Your task to perform on an android device: Go to notification settings Image 0: 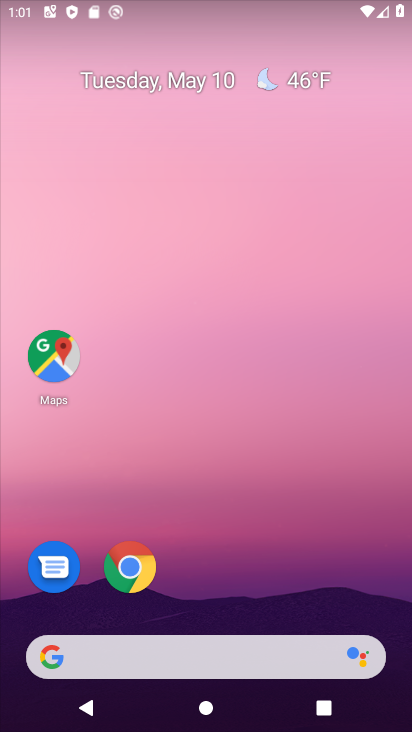
Step 0: click (265, 195)
Your task to perform on an android device: Go to notification settings Image 1: 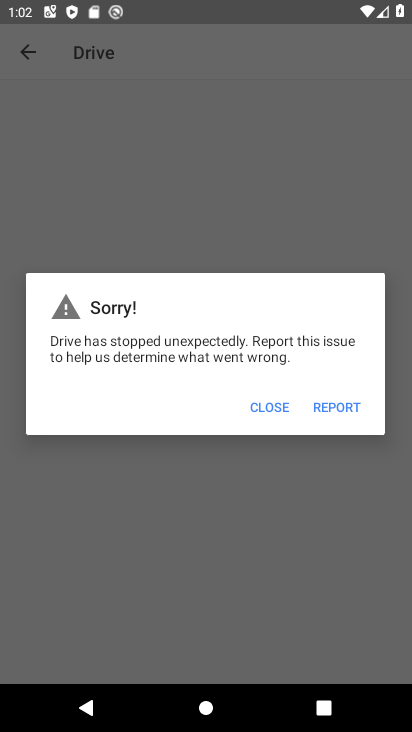
Step 1: press home button
Your task to perform on an android device: Go to notification settings Image 2: 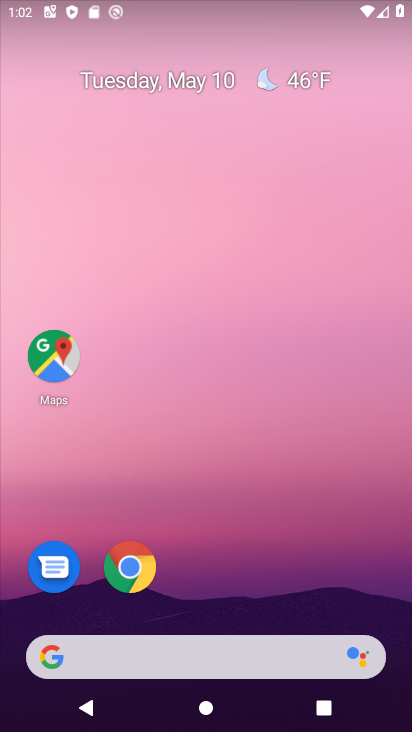
Step 2: drag from (336, 494) to (334, 165)
Your task to perform on an android device: Go to notification settings Image 3: 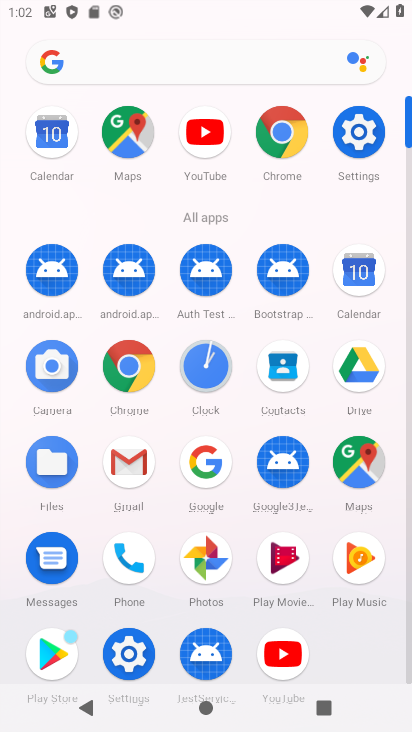
Step 3: click (358, 147)
Your task to perform on an android device: Go to notification settings Image 4: 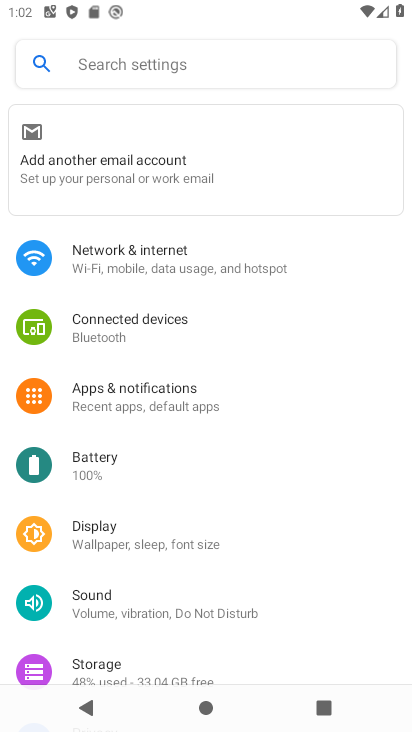
Step 4: click (225, 386)
Your task to perform on an android device: Go to notification settings Image 5: 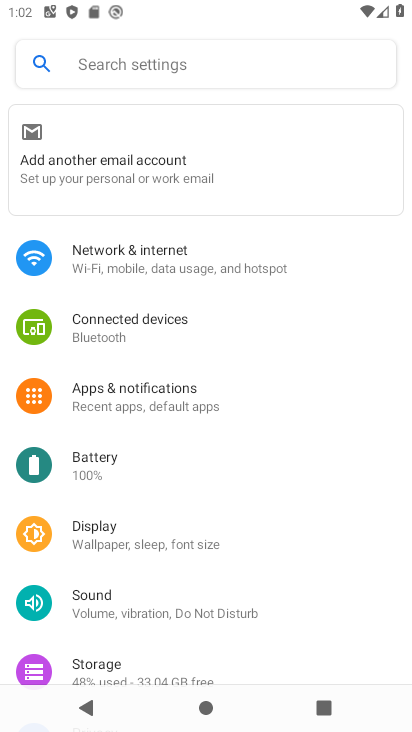
Step 5: click (156, 394)
Your task to perform on an android device: Go to notification settings Image 6: 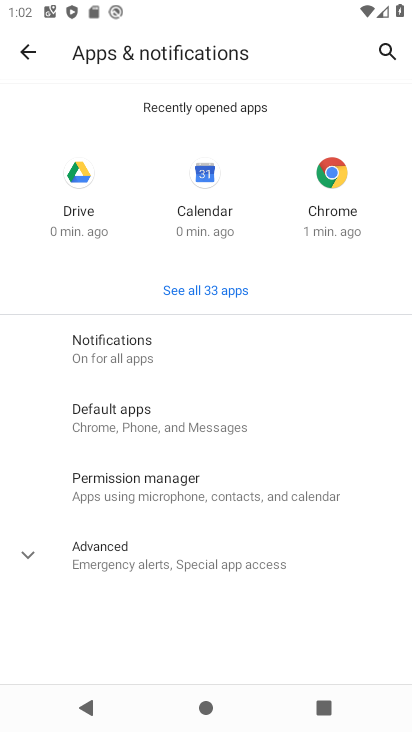
Step 6: click (238, 350)
Your task to perform on an android device: Go to notification settings Image 7: 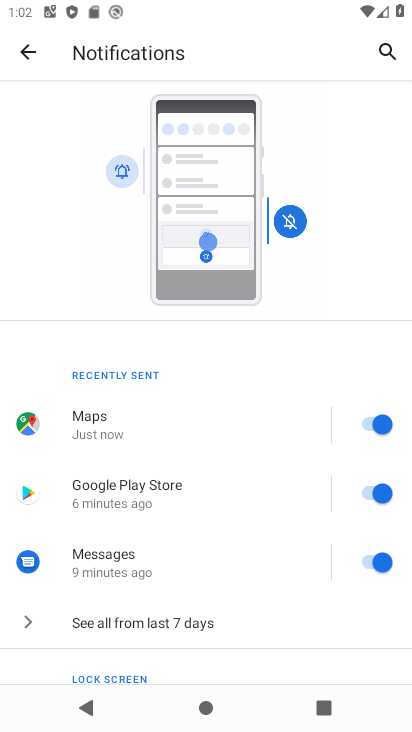
Step 7: task complete